Your task to perform on an android device: toggle javascript in the chrome app Image 0: 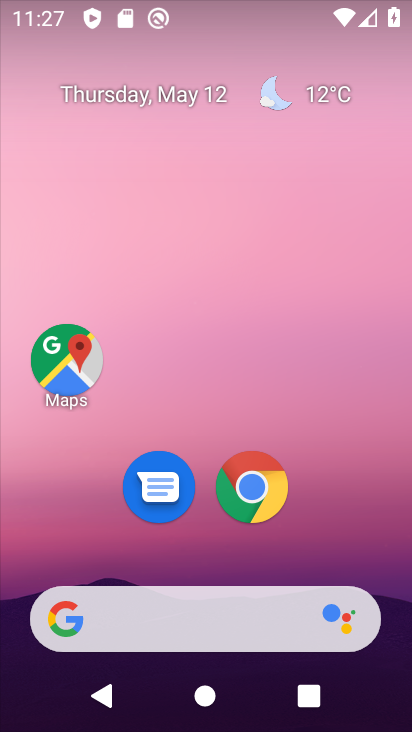
Step 0: click (233, 481)
Your task to perform on an android device: toggle javascript in the chrome app Image 1: 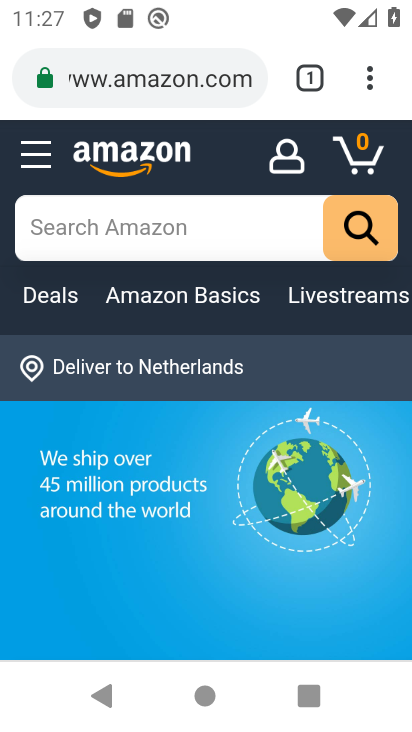
Step 1: drag from (358, 67) to (68, 539)
Your task to perform on an android device: toggle javascript in the chrome app Image 2: 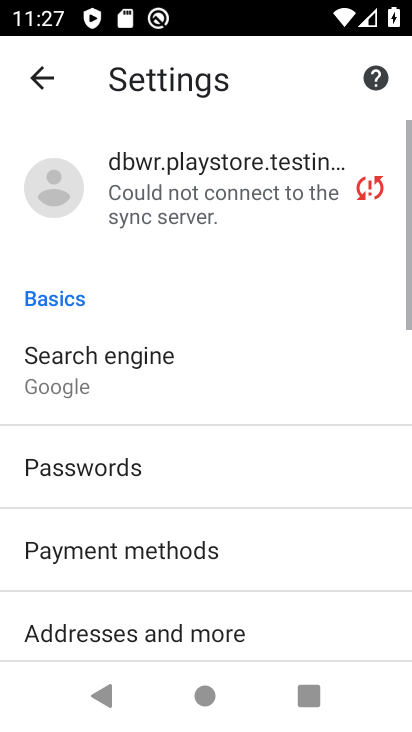
Step 2: drag from (134, 592) to (287, 86)
Your task to perform on an android device: toggle javascript in the chrome app Image 3: 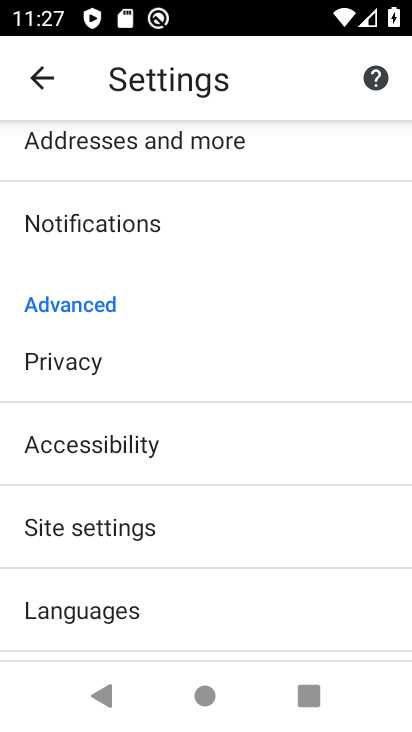
Step 3: click (126, 536)
Your task to perform on an android device: toggle javascript in the chrome app Image 4: 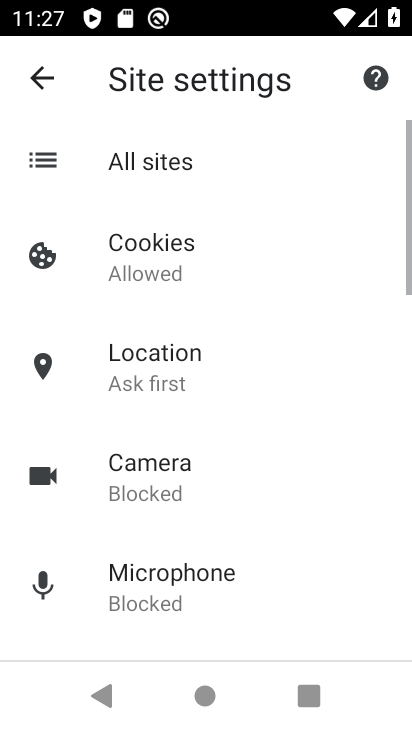
Step 4: drag from (137, 547) to (256, 111)
Your task to perform on an android device: toggle javascript in the chrome app Image 5: 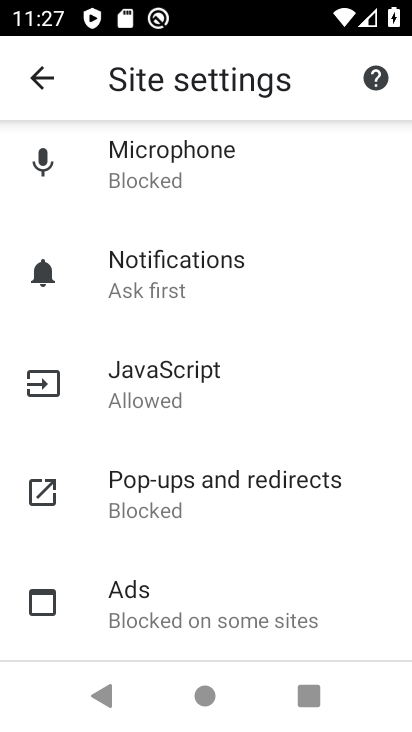
Step 5: click (170, 388)
Your task to perform on an android device: toggle javascript in the chrome app Image 6: 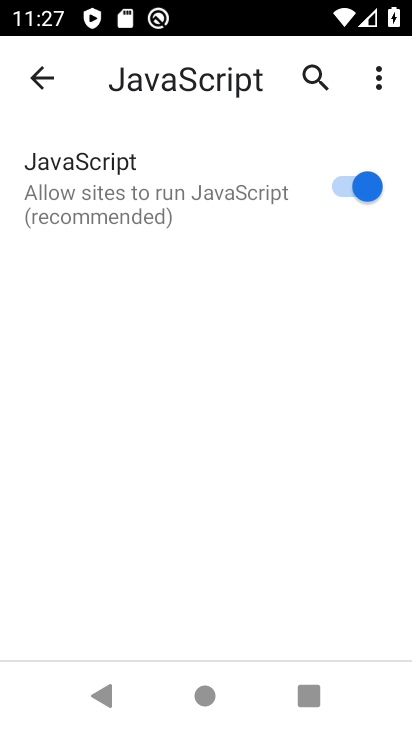
Step 6: click (354, 192)
Your task to perform on an android device: toggle javascript in the chrome app Image 7: 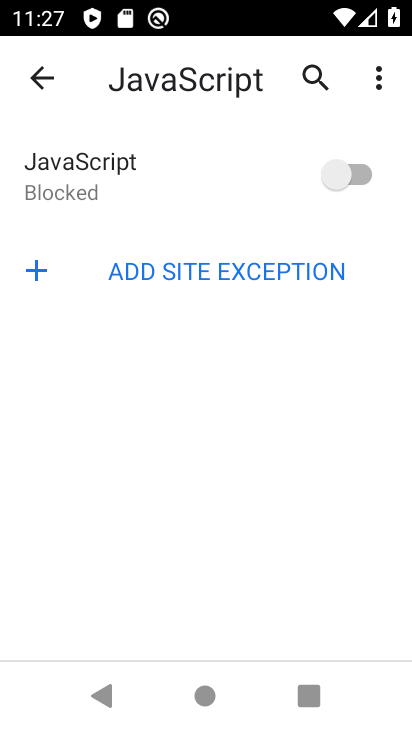
Step 7: task complete